Your task to perform on an android device: turn off airplane mode Image 0: 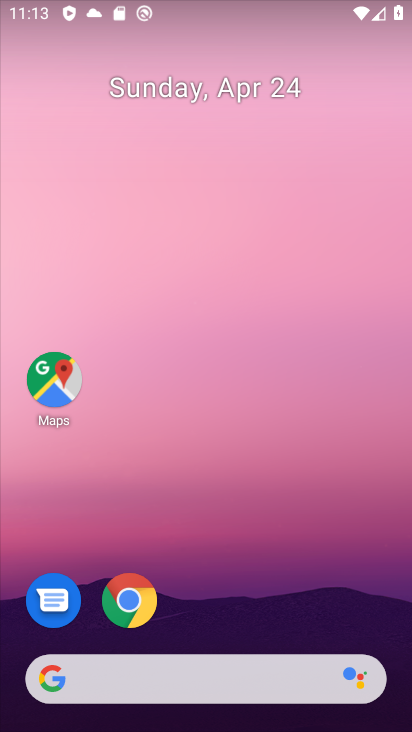
Step 0: drag from (229, 597) to (157, 43)
Your task to perform on an android device: turn off airplane mode Image 1: 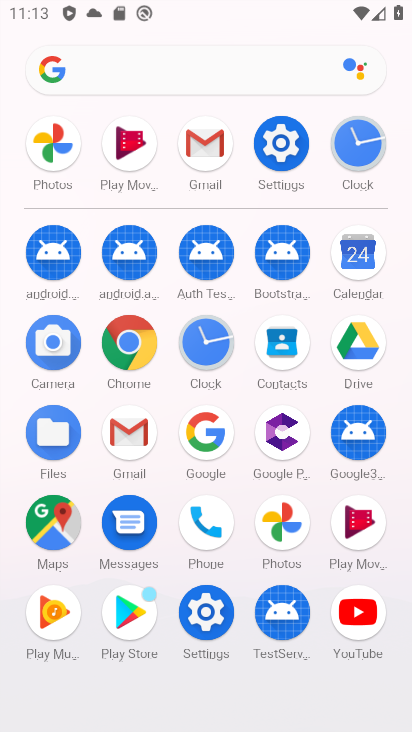
Step 1: click (279, 147)
Your task to perform on an android device: turn off airplane mode Image 2: 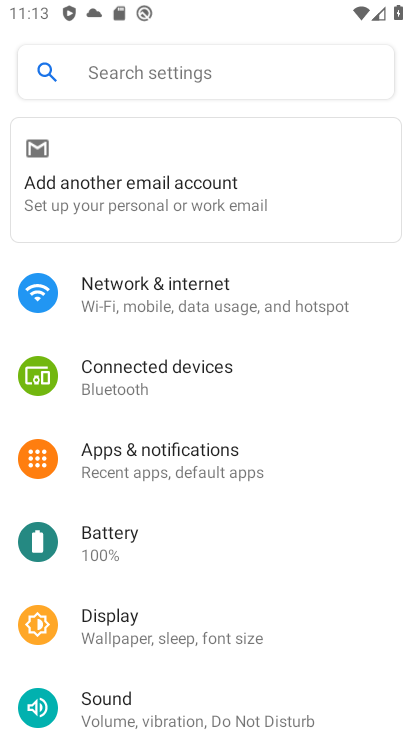
Step 2: click (170, 294)
Your task to perform on an android device: turn off airplane mode Image 3: 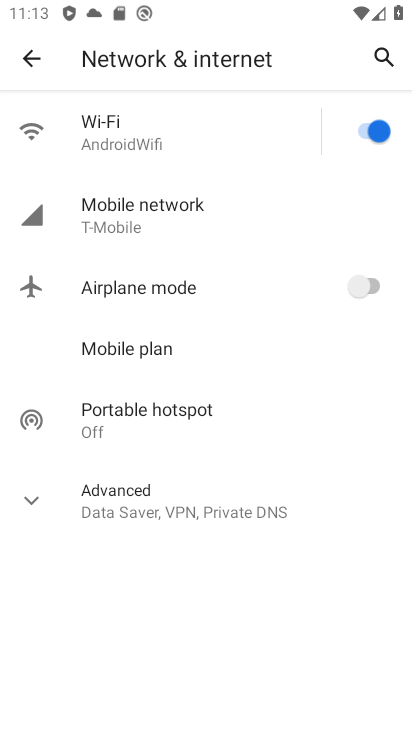
Step 3: task complete